Your task to perform on an android device: open a bookmark in the chrome app Image 0: 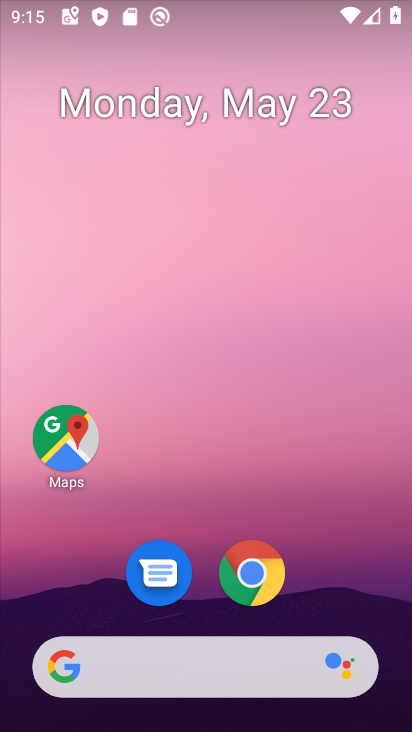
Step 0: drag from (369, 611) to (375, 273)
Your task to perform on an android device: open a bookmark in the chrome app Image 1: 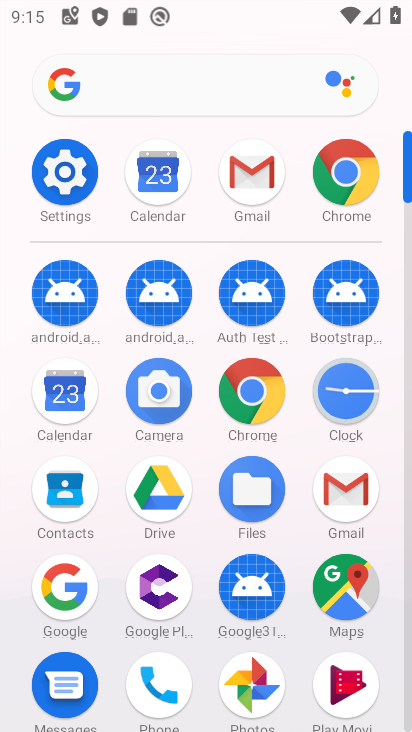
Step 1: click (262, 400)
Your task to perform on an android device: open a bookmark in the chrome app Image 2: 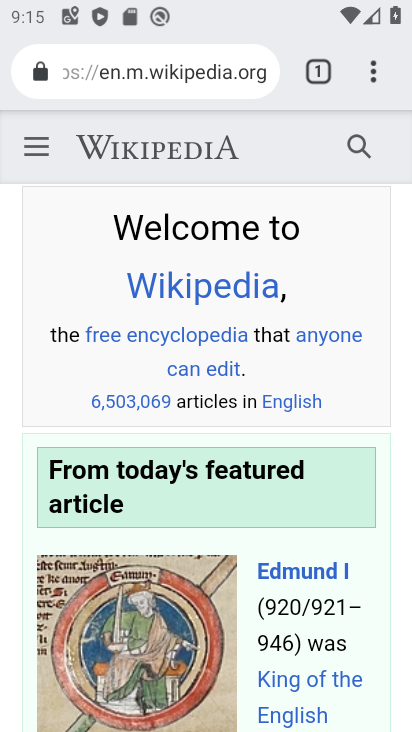
Step 2: click (372, 77)
Your task to perform on an android device: open a bookmark in the chrome app Image 3: 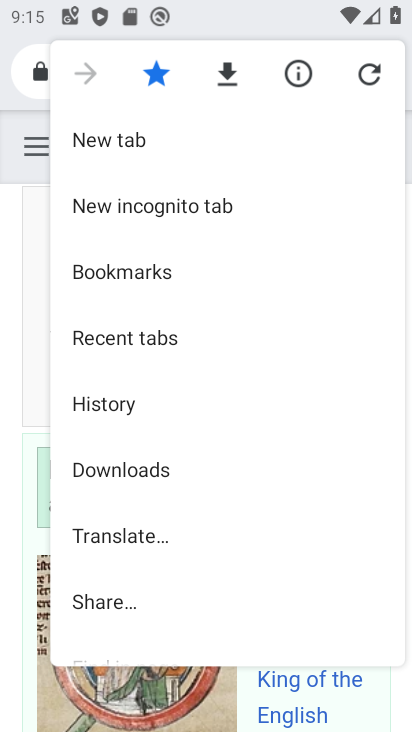
Step 3: click (176, 279)
Your task to perform on an android device: open a bookmark in the chrome app Image 4: 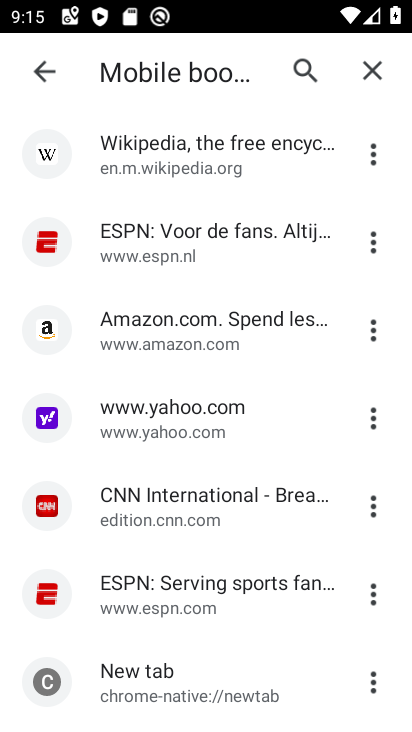
Step 4: click (236, 349)
Your task to perform on an android device: open a bookmark in the chrome app Image 5: 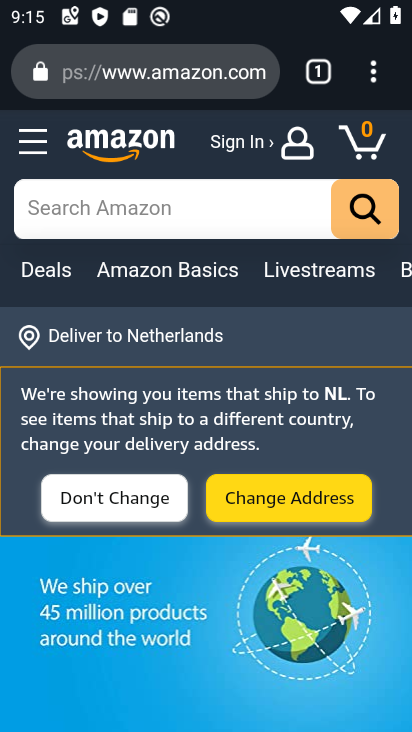
Step 5: task complete